Your task to perform on an android device: turn off airplane mode Image 0: 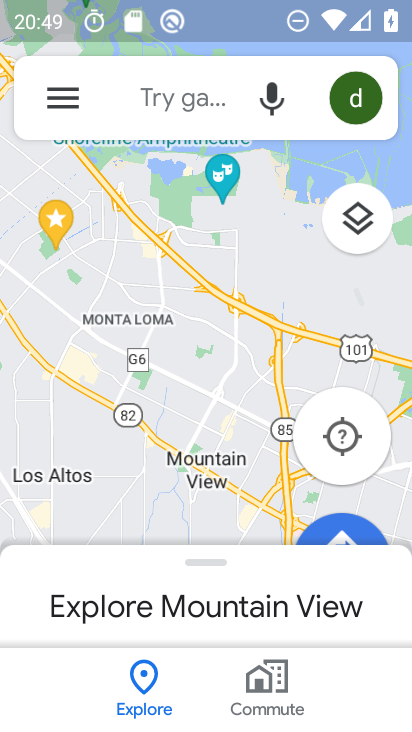
Step 0: press home button
Your task to perform on an android device: turn off airplane mode Image 1: 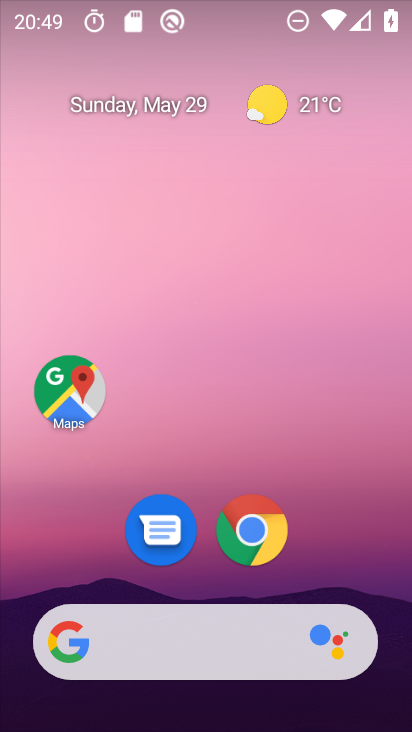
Step 1: drag from (232, 669) to (330, 22)
Your task to perform on an android device: turn off airplane mode Image 2: 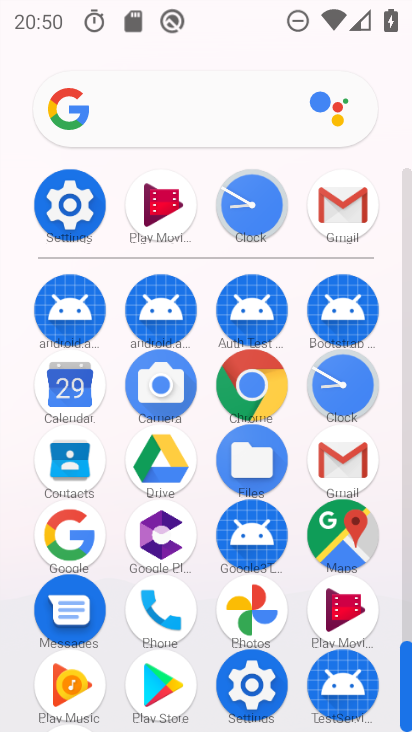
Step 2: click (75, 229)
Your task to perform on an android device: turn off airplane mode Image 3: 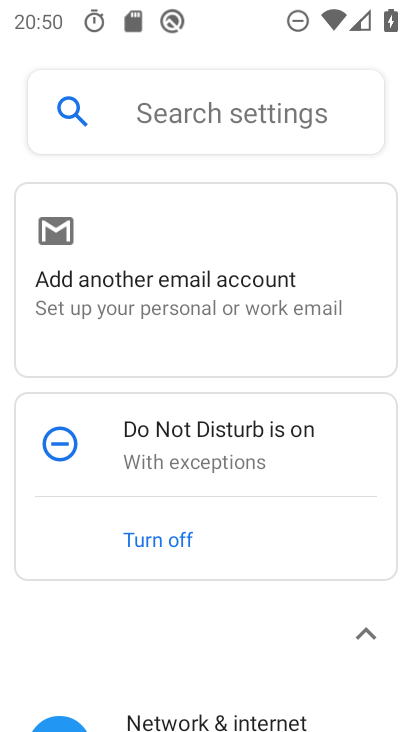
Step 3: click (194, 698)
Your task to perform on an android device: turn off airplane mode Image 4: 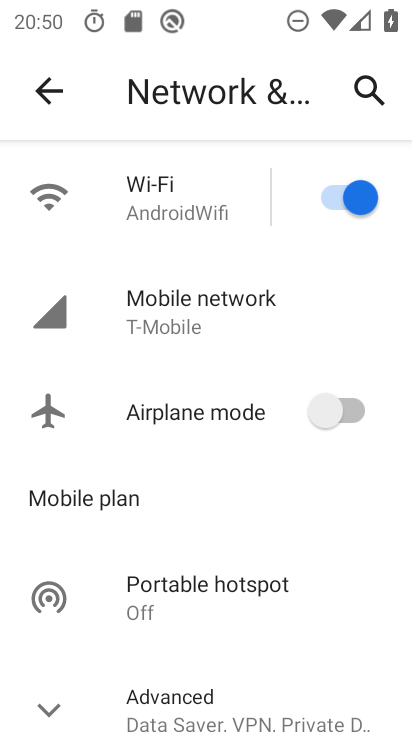
Step 4: click (324, 419)
Your task to perform on an android device: turn off airplane mode Image 5: 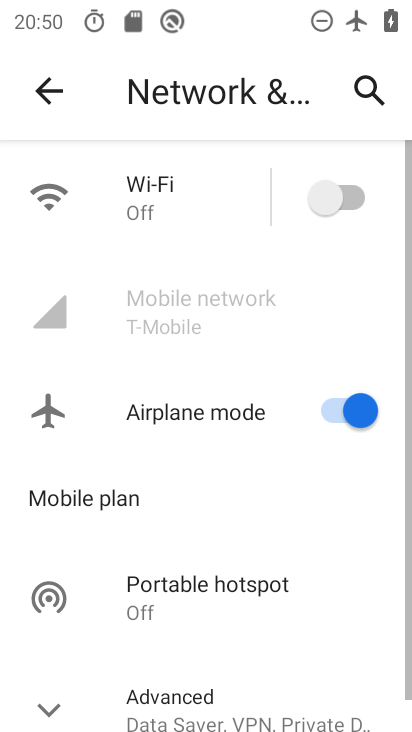
Step 5: click (324, 419)
Your task to perform on an android device: turn off airplane mode Image 6: 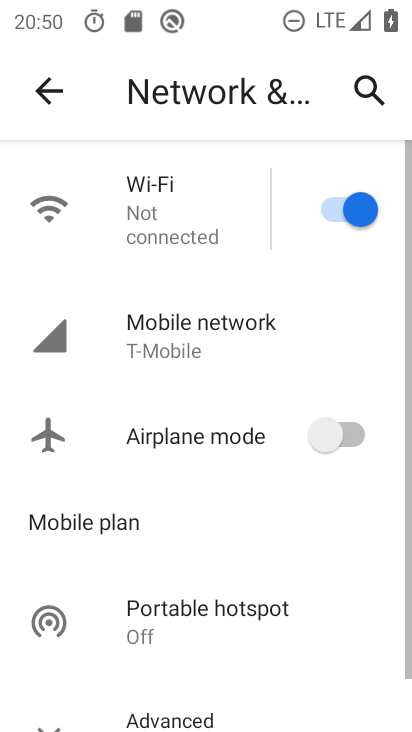
Step 6: task complete